Your task to perform on an android device: check storage Image 0: 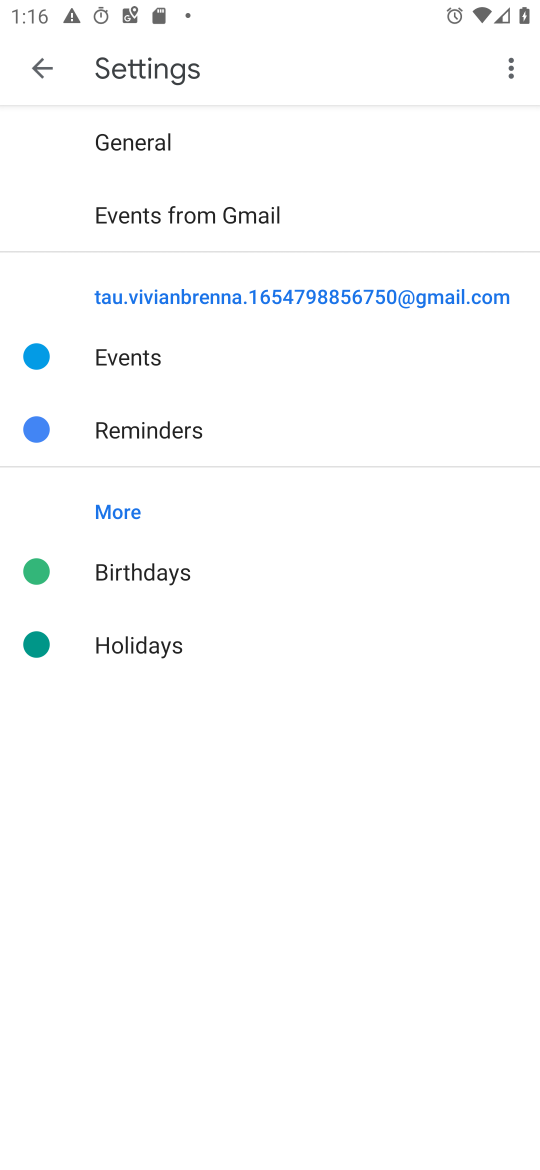
Step 0: press home button
Your task to perform on an android device: check storage Image 1: 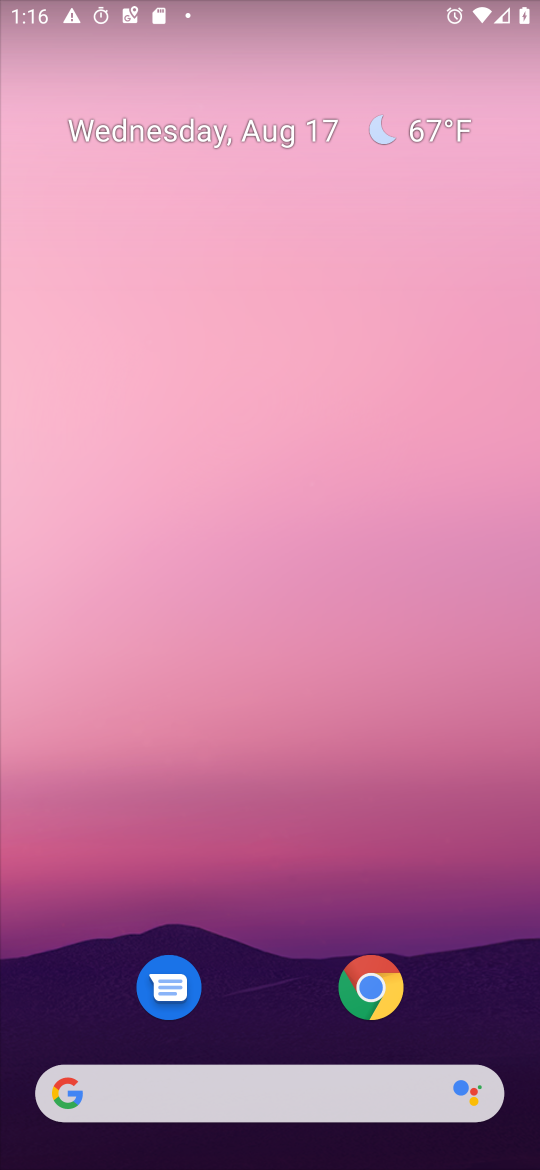
Step 1: drag from (26, 1075) to (185, 466)
Your task to perform on an android device: check storage Image 2: 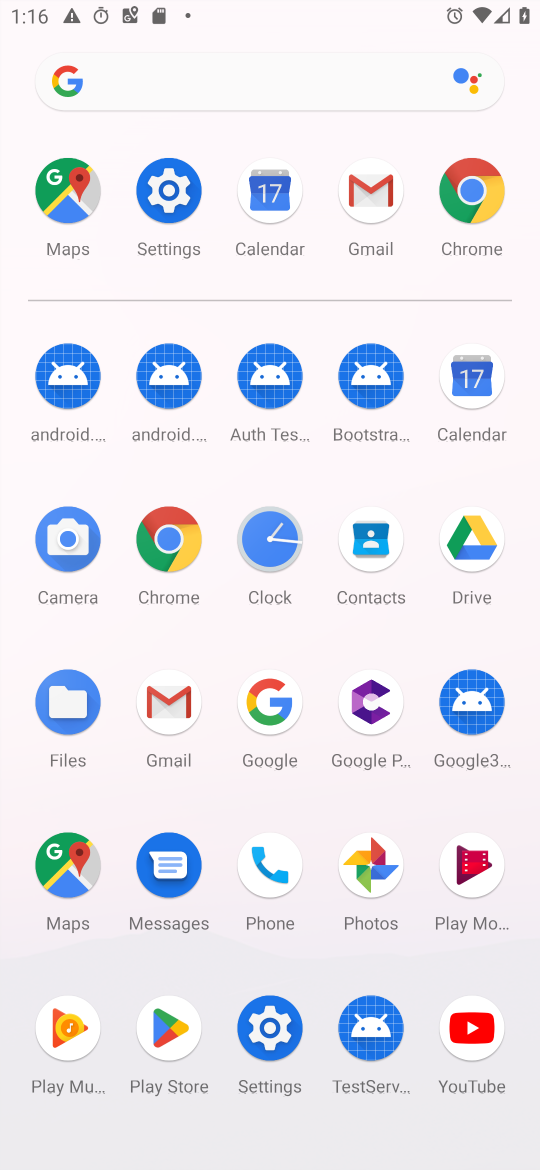
Step 2: click (270, 1020)
Your task to perform on an android device: check storage Image 3: 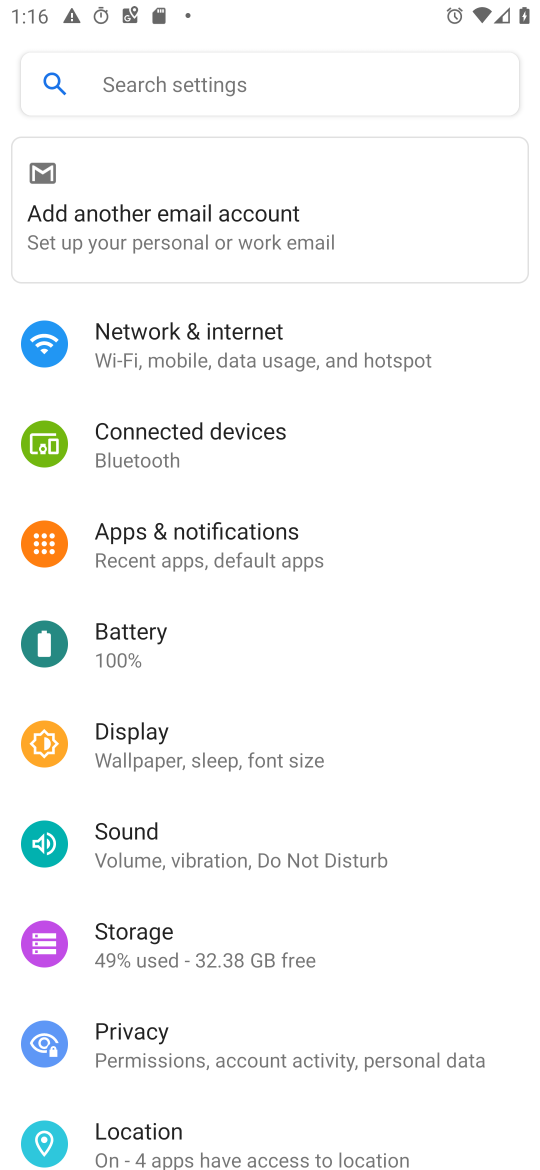
Step 3: click (185, 935)
Your task to perform on an android device: check storage Image 4: 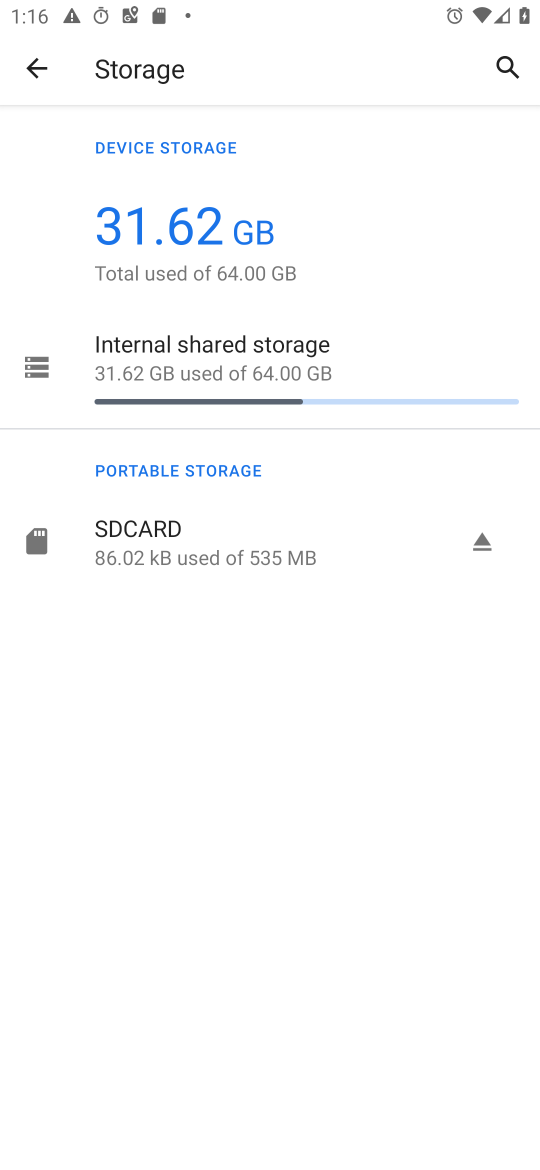
Step 4: task complete